Your task to perform on an android device: What's on my calendar today? Image 0: 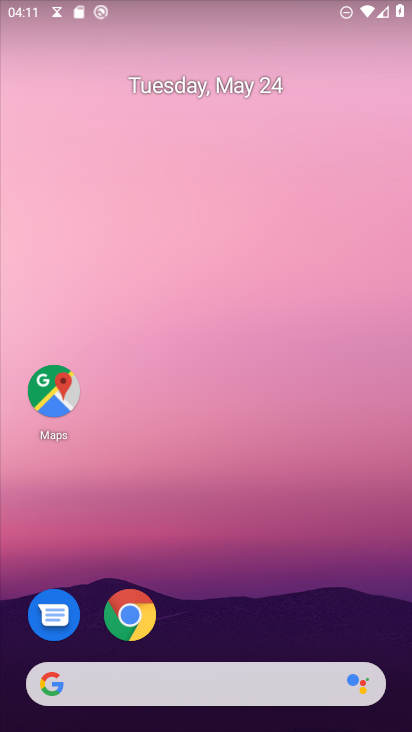
Step 0: drag from (272, 572) to (199, 29)
Your task to perform on an android device: What's on my calendar today? Image 1: 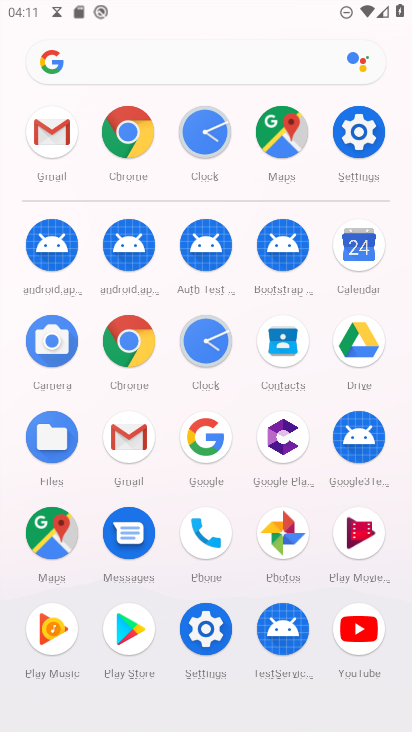
Step 1: drag from (14, 508) to (24, 214)
Your task to perform on an android device: What's on my calendar today? Image 2: 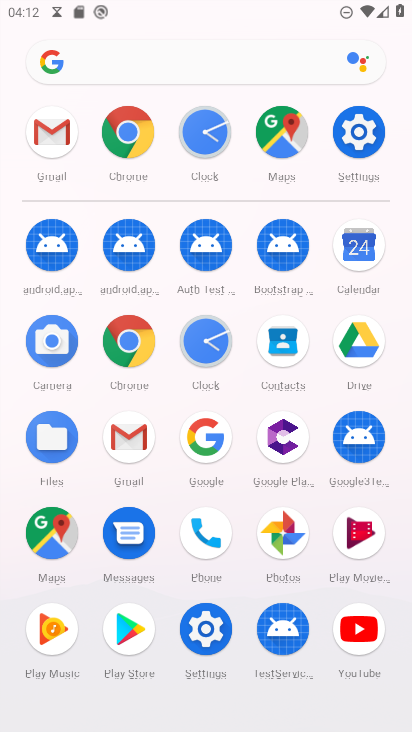
Step 2: click (354, 237)
Your task to perform on an android device: What's on my calendar today? Image 3: 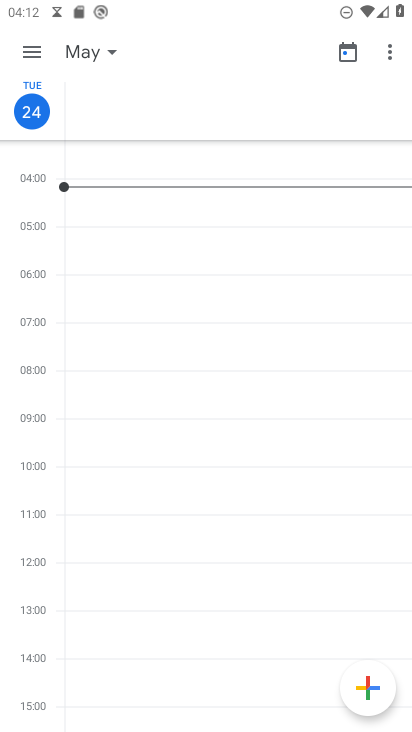
Step 3: task complete